Your task to perform on an android device: toggle javascript in the chrome app Image 0: 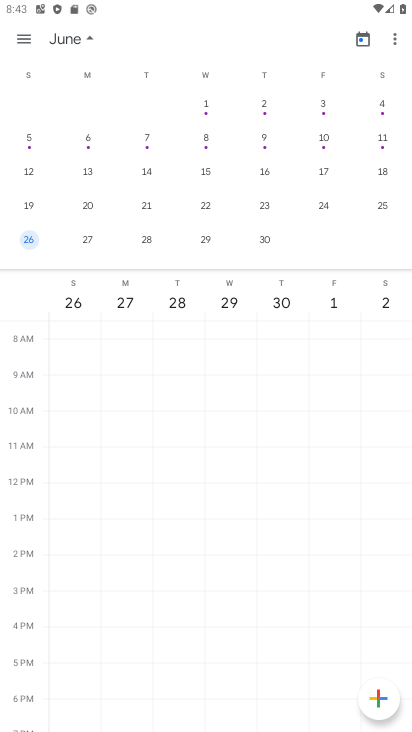
Step 0: press home button
Your task to perform on an android device: toggle javascript in the chrome app Image 1: 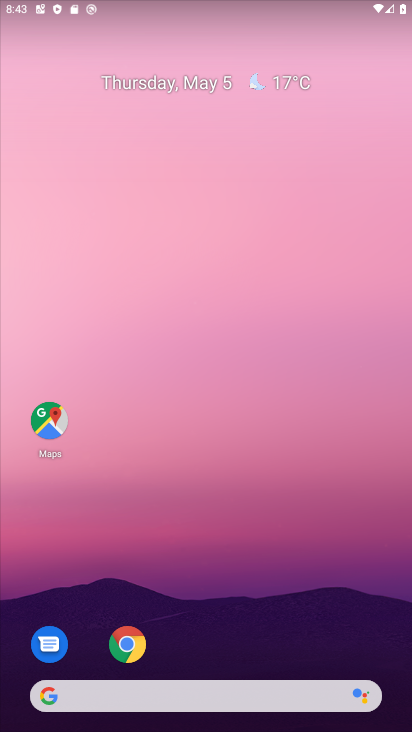
Step 1: drag from (231, 638) to (195, 39)
Your task to perform on an android device: toggle javascript in the chrome app Image 2: 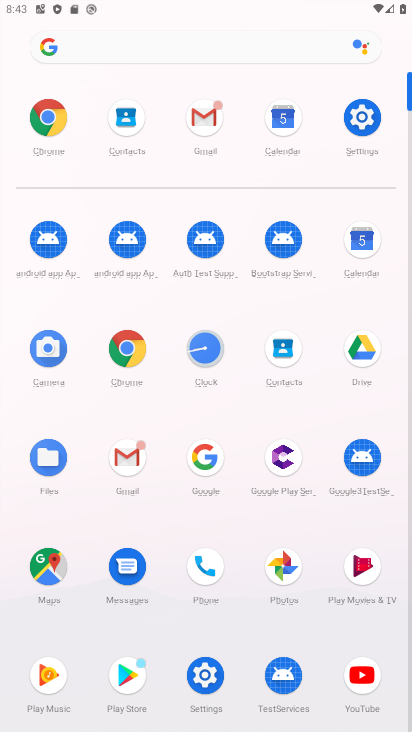
Step 2: click (53, 113)
Your task to perform on an android device: toggle javascript in the chrome app Image 3: 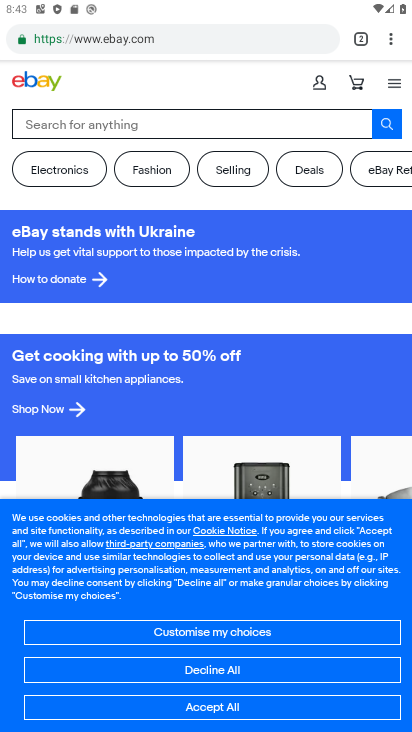
Step 3: click (392, 46)
Your task to perform on an android device: toggle javascript in the chrome app Image 4: 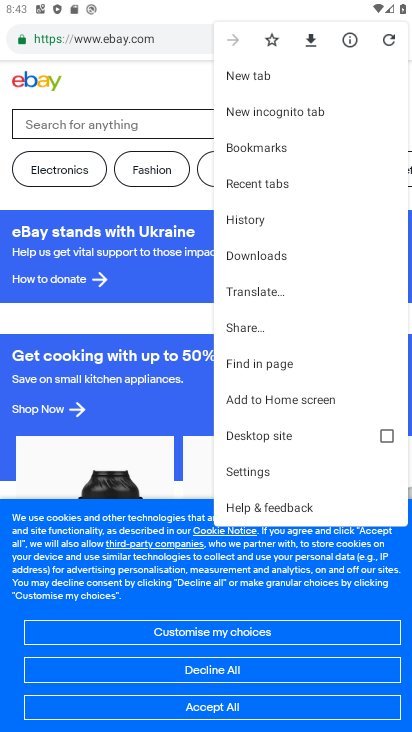
Step 4: click (300, 472)
Your task to perform on an android device: toggle javascript in the chrome app Image 5: 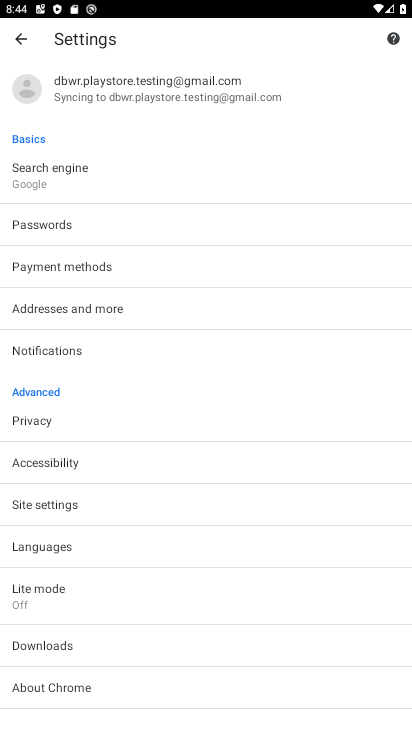
Step 5: click (194, 497)
Your task to perform on an android device: toggle javascript in the chrome app Image 6: 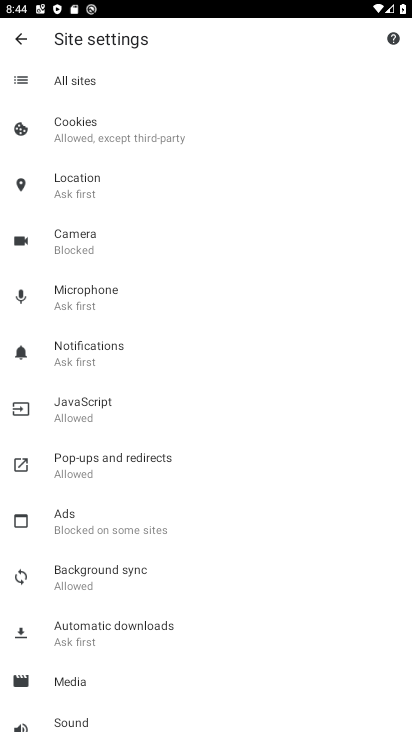
Step 6: click (181, 421)
Your task to perform on an android device: toggle javascript in the chrome app Image 7: 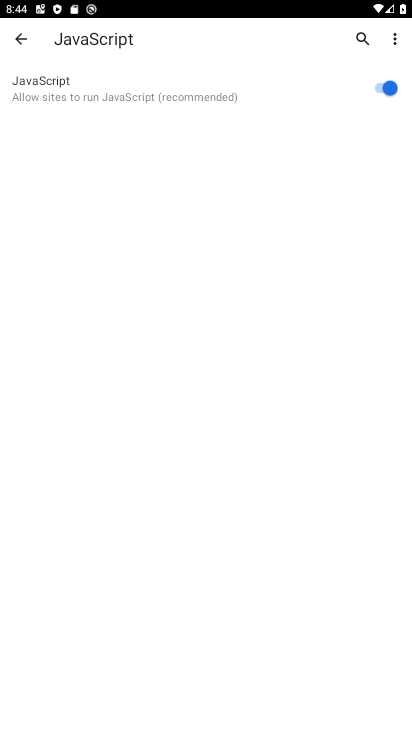
Step 7: click (389, 85)
Your task to perform on an android device: toggle javascript in the chrome app Image 8: 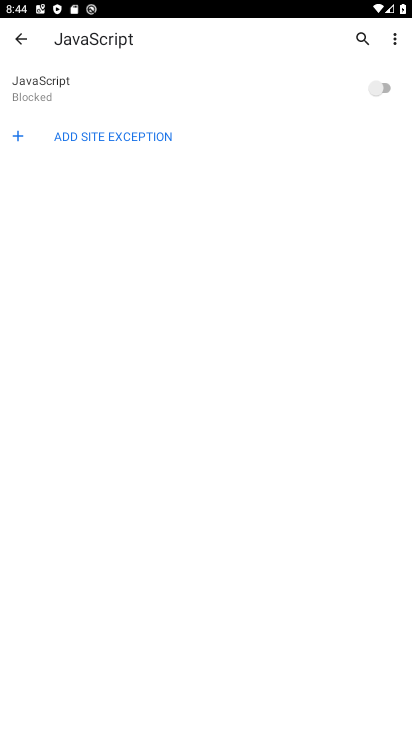
Step 8: task complete